Your task to perform on an android device: turn pop-ups off in chrome Image 0: 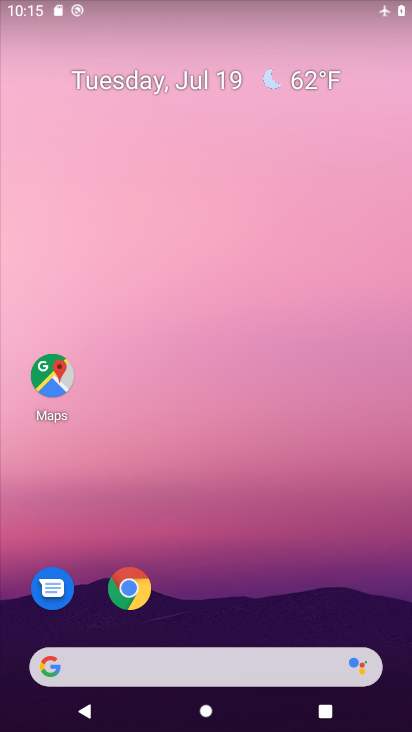
Step 0: click (131, 587)
Your task to perform on an android device: turn pop-ups off in chrome Image 1: 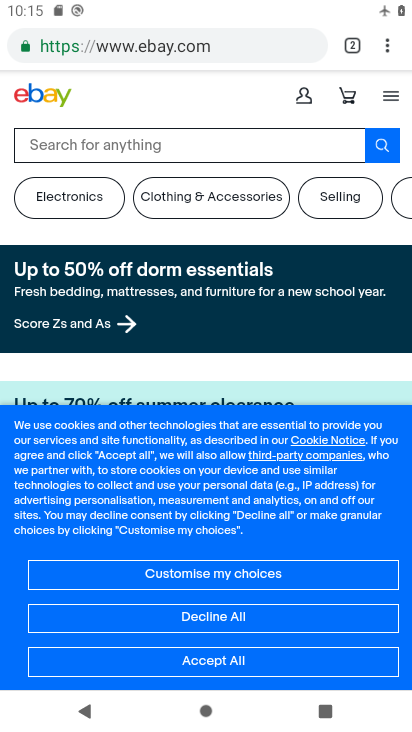
Step 1: click (386, 44)
Your task to perform on an android device: turn pop-ups off in chrome Image 2: 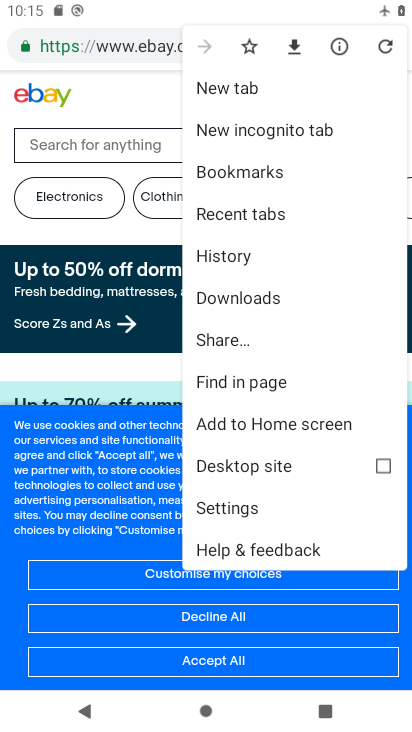
Step 2: click (226, 503)
Your task to perform on an android device: turn pop-ups off in chrome Image 3: 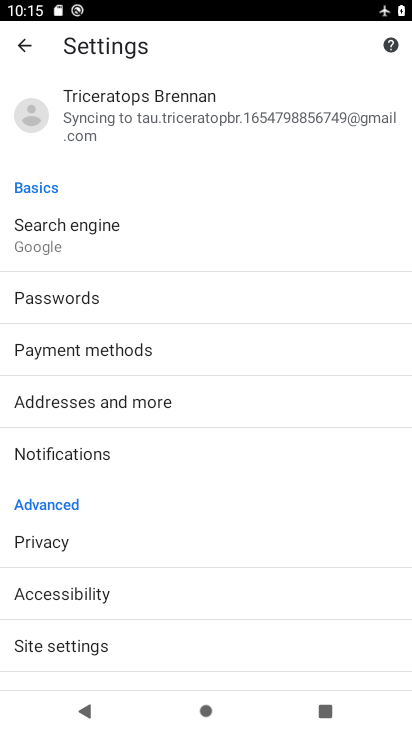
Step 3: click (78, 641)
Your task to perform on an android device: turn pop-ups off in chrome Image 4: 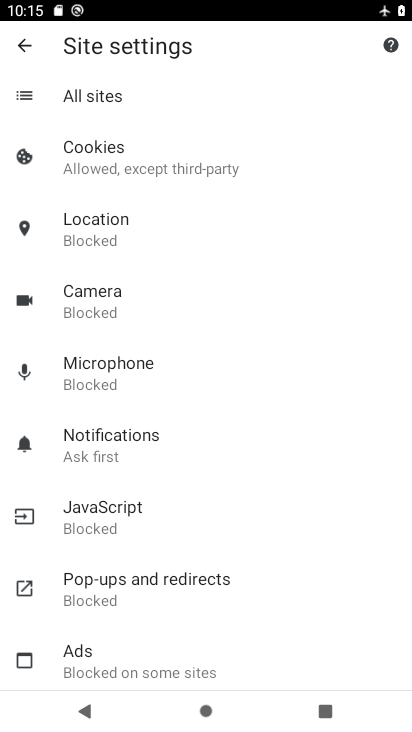
Step 4: click (93, 601)
Your task to perform on an android device: turn pop-ups off in chrome Image 5: 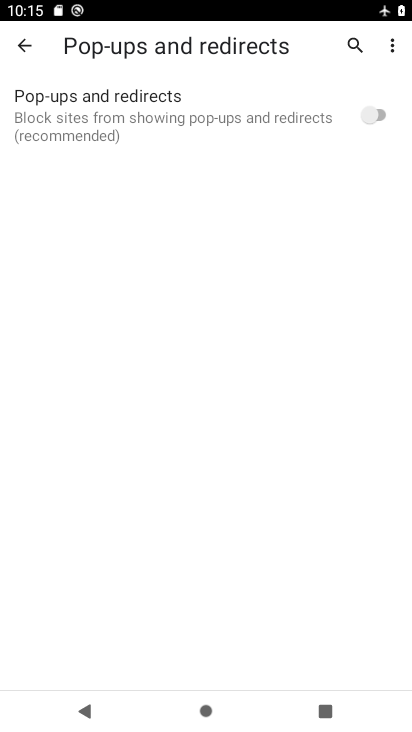
Step 5: task complete